Your task to perform on an android device: turn pop-ups on in chrome Image 0: 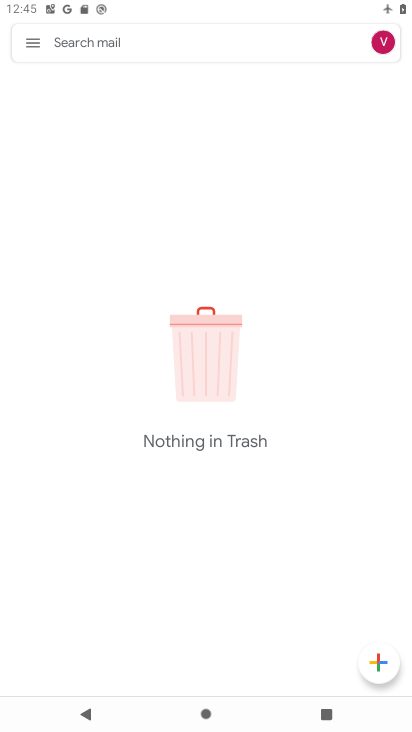
Step 0: press home button
Your task to perform on an android device: turn pop-ups on in chrome Image 1: 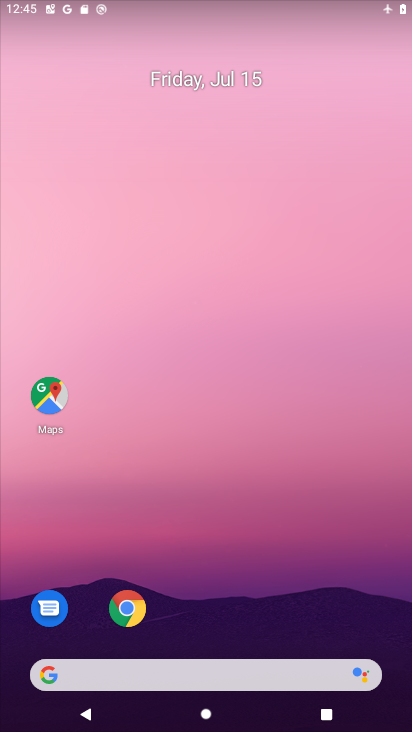
Step 1: click (129, 610)
Your task to perform on an android device: turn pop-ups on in chrome Image 2: 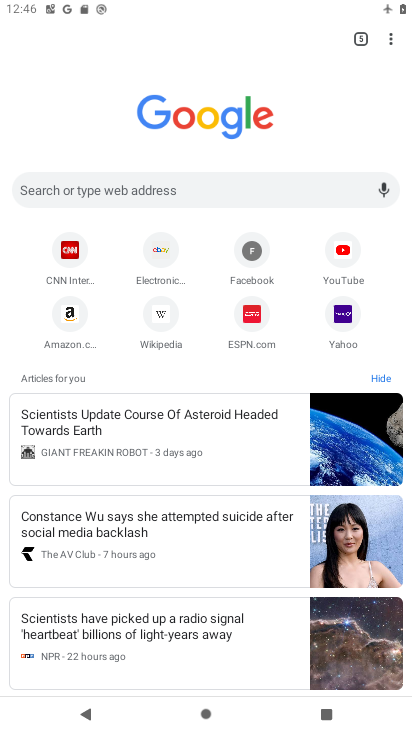
Step 2: click (391, 36)
Your task to perform on an android device: turn pop-ups on in chrome Image 3: 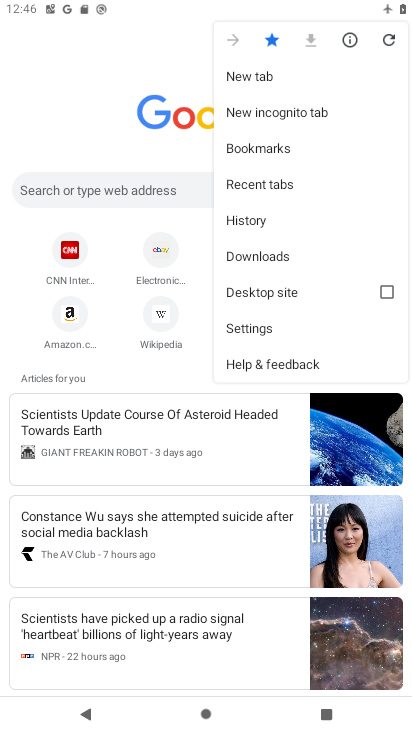
Step 3: click (250, 324)
Your task to perform on an android device: turn pop-ups on in chrome Image 4: 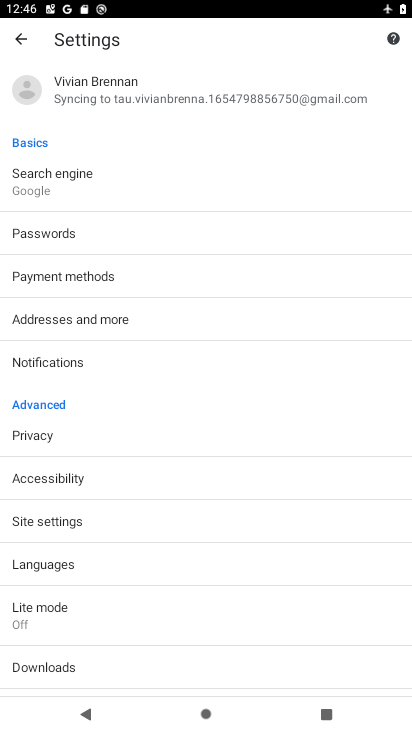
Step 4: click (46, 519)
Your task to perform on an android device: turn pop-ups on in chrome Image 5: 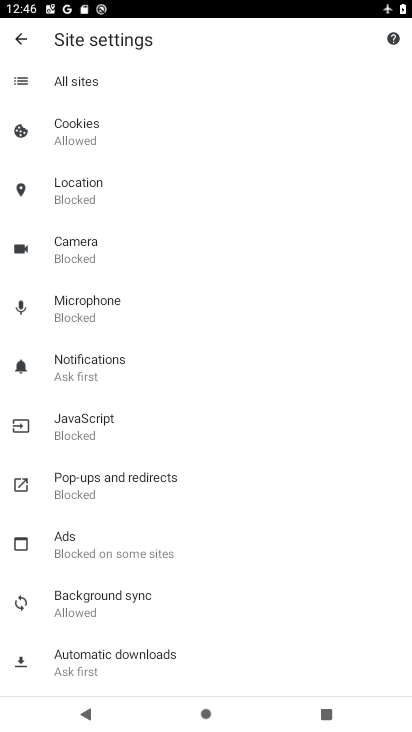
Step 5: click (96, 477)
Your task to perform on an android device: turn pop-ups on in chrome Image 6: 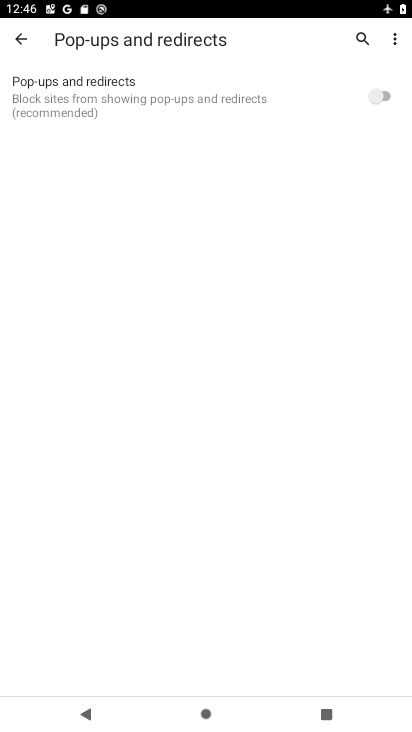
Step 6: click (370, 93)
Your task to perform on an android device: turn pop-ups on in chrome Image 7: 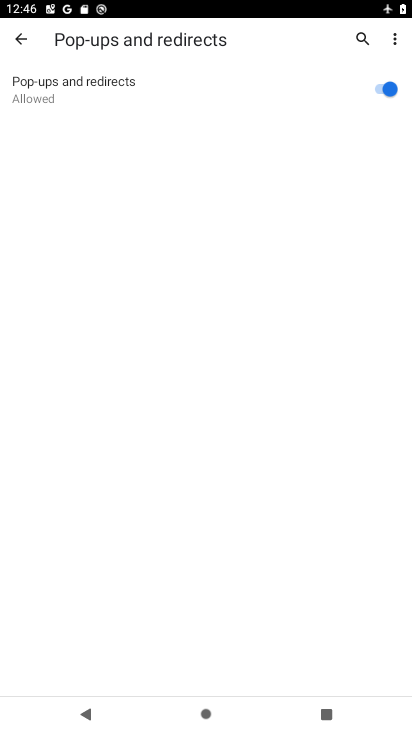
Step 7: task complete